Your task to perform on an android device: Search for sushi restaurants on Maps Image 0: 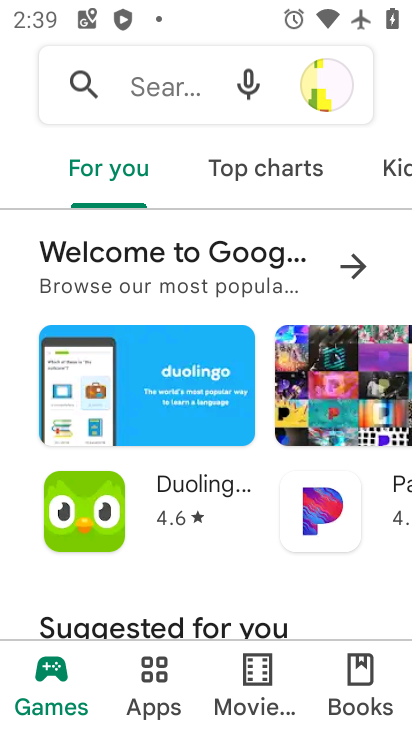
Step 0: press home button
Your task to perform on an android device: Search for sushi restaurants on Maps Image 1: 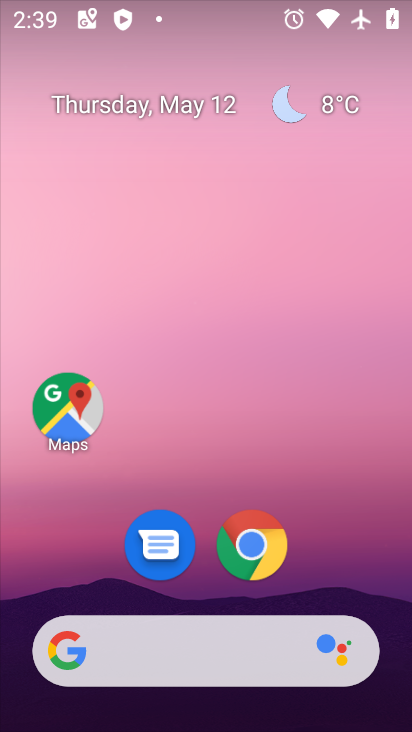
Step 1: click (66, 413)
Your task to perform on an android device: Search for sushi restaurants on Maps Image 2: 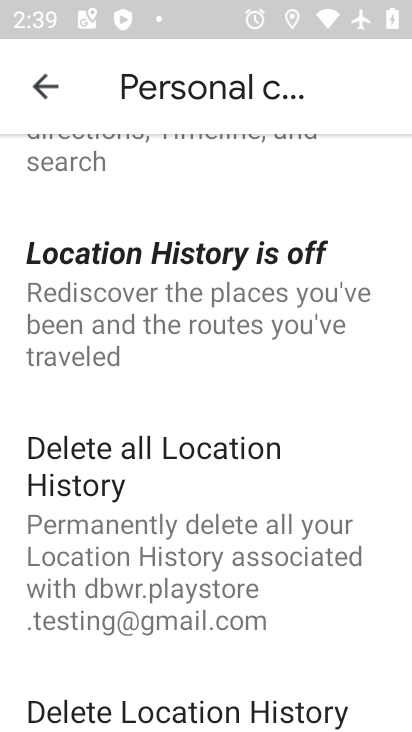
Step 2: press back button
Your task to perform on an android device: Search for sushi restaurants on Maps Image 3: 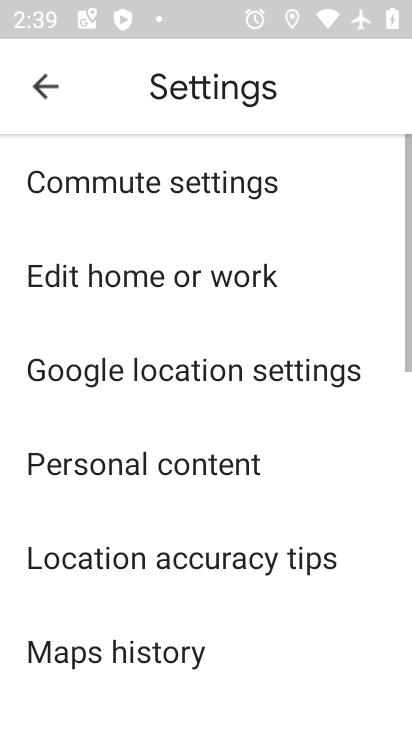
Step 3: press back button
Your task to perform on an android device: Search for sushi restaurants on Maps Image 4: 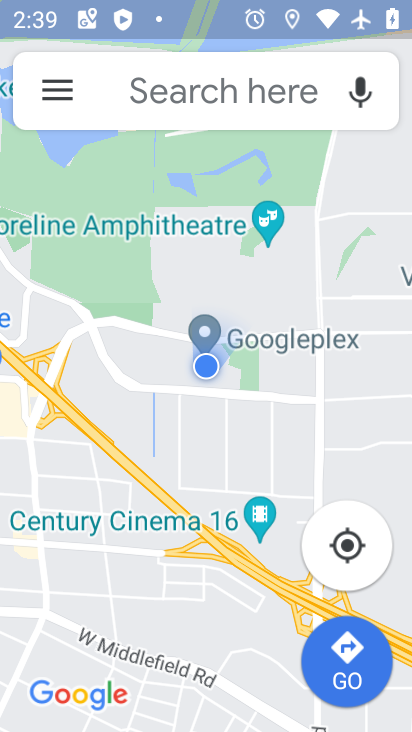
Step 4: click (233, 88)
Your task to perform on an android device: Search for sushi restaurants on Maps Image 5: 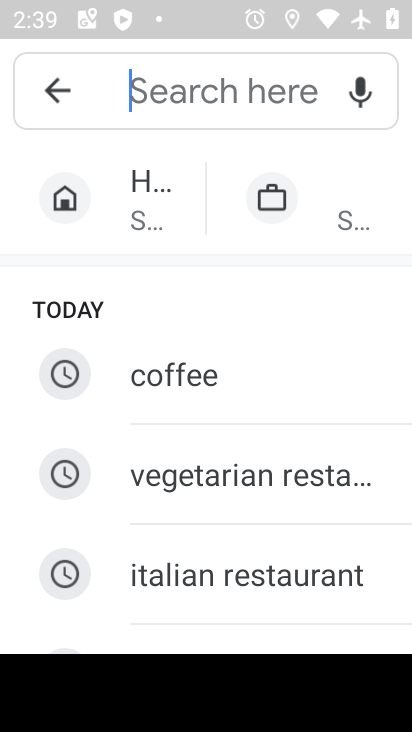
Step 5: type "sushi restaurants"
Your task to perform on an android device: Search for sushi restaurants on Maps Image 6: 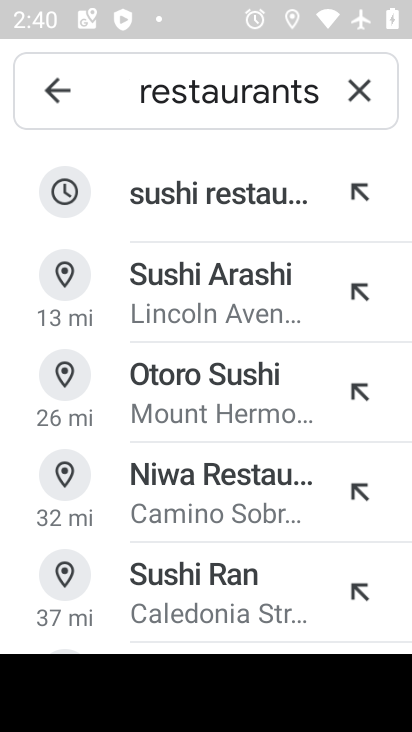
Step 6: click (166, 187)
Your task to perform on an android device: Search for sushi restaurants on Maps Image 7: 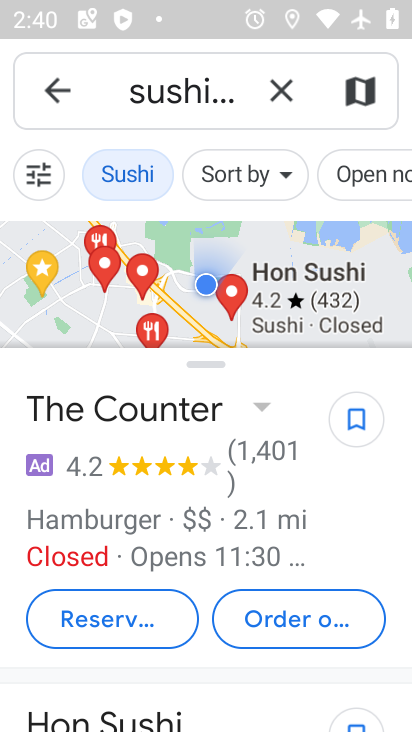
Step 7: task complete